Your task to perform on an android device: see sites visited before in the chrome app Image 0: 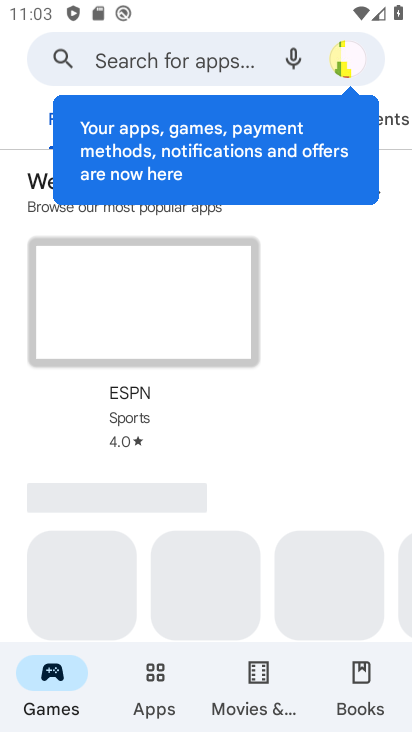
Step 0: press home button
Your task to perform on an android device: see sites visited before in the chrome app Image 1: 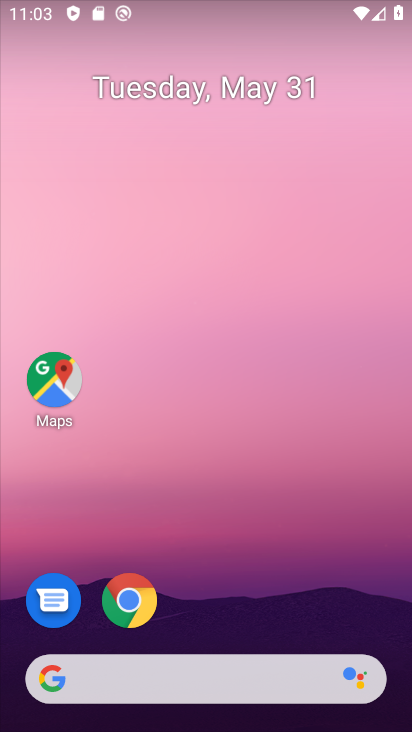
Step 1: click (148, 619)
Your task to perform on an android device: see sites visited before in the chrome app Image 2: 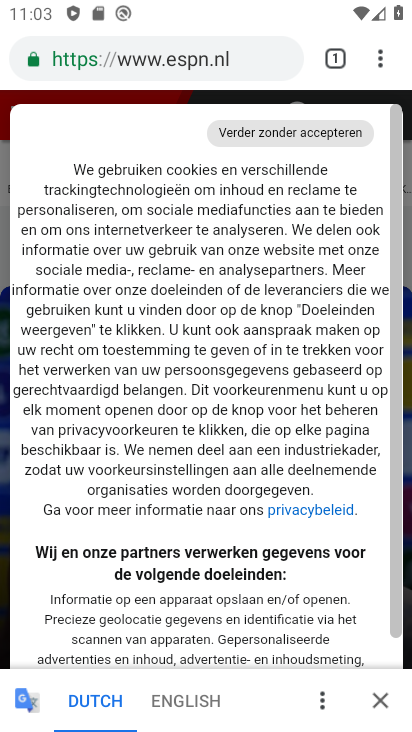
Step 2: click (383, 49)
Your task to perform on an android device: see sites visited before in the chrome app Image 3: 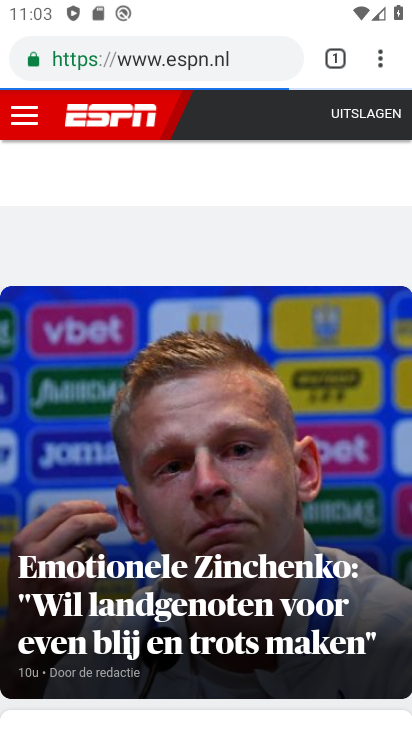
Step 3: click (383, 57)
Your task to perform on an android device: see sites visited before in the chrome app Image 4: 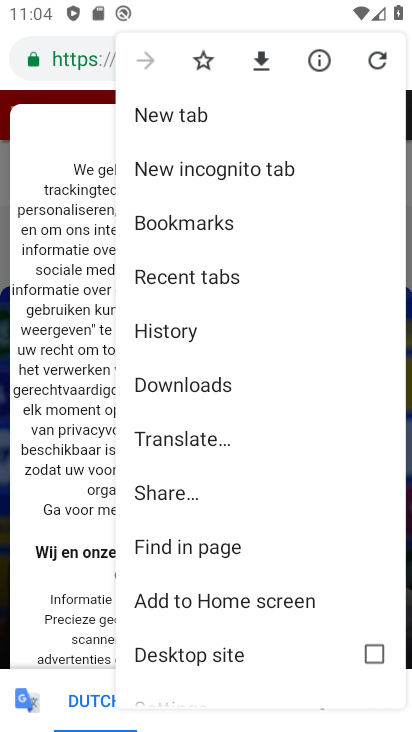
Step 4: click (213, 336)
Your task to perform on an android device: see sites visited before in the chrome app Image 5: 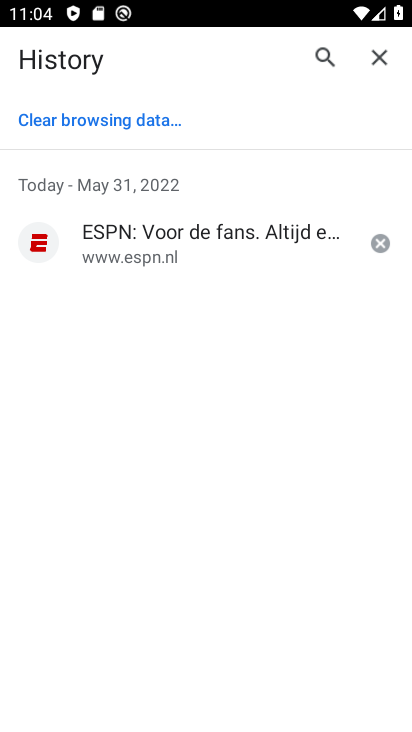
Step 5: task complete